Your task to perform on an android device: change the clock display to show seconds Image 0: 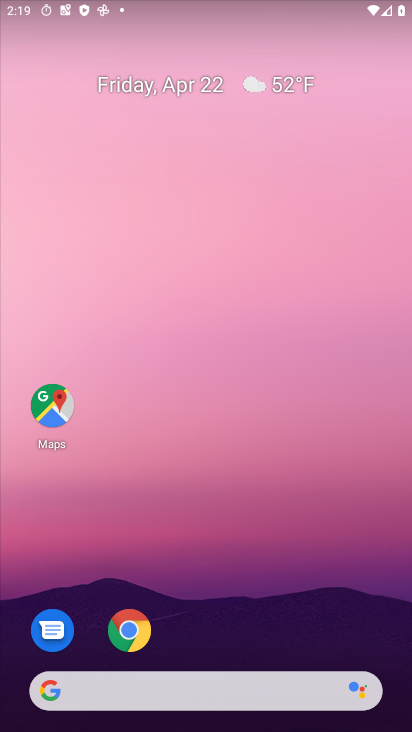
Step 0: drag from (370, 196) to (372, 111)
Your task to perform on an android device: change the clock display to show seconds Image 1: 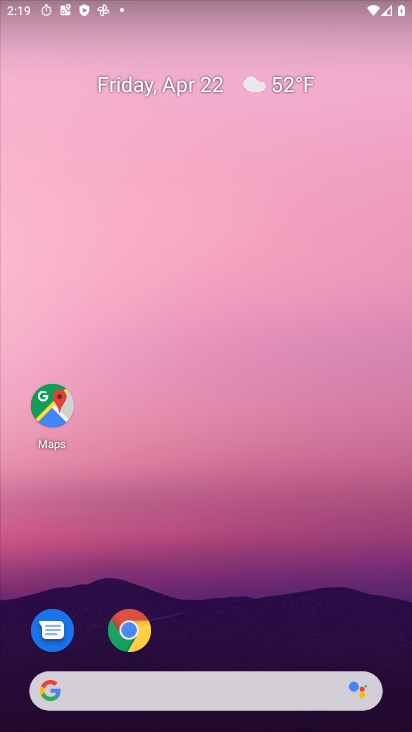
Step 1: click (377, 146)
Your task to perform on an android device: change the clock display to show seconds Image 2: 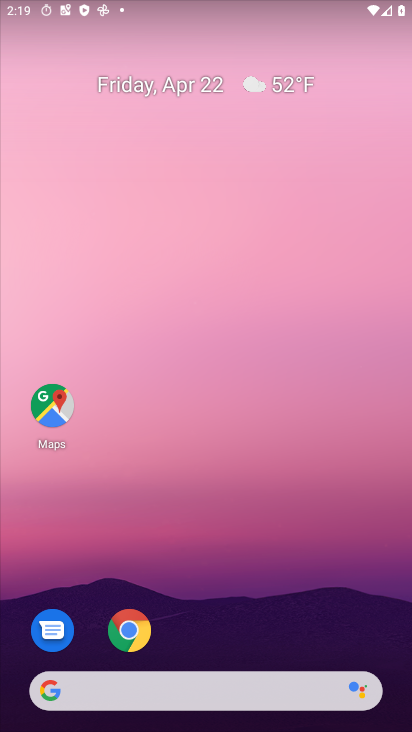
Step 2: drag from (354, 263) to (352, 226)
Your task to perform on an android device: change the clock display to show seconds Image 3: 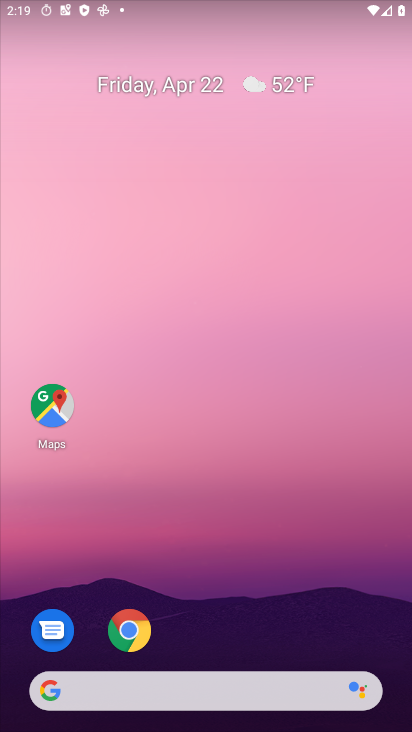
Step 3: drag from (371, 496) to (318, 136)
Your task to perform on an android device: change the clock display to show seconds Image 4: 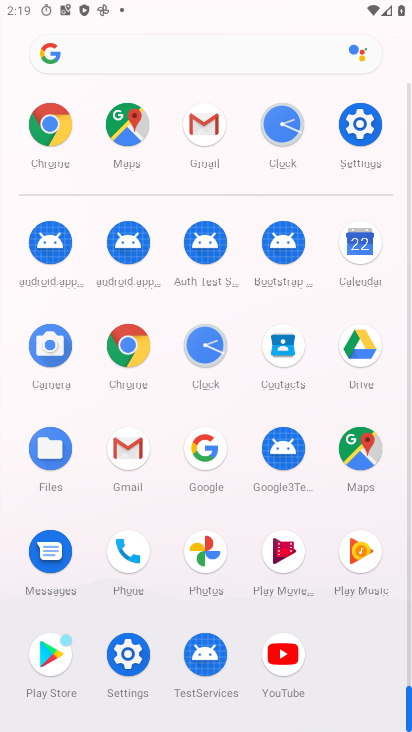
Step 4: click (207, 338)
Your task to perform on an android device: change the clock display to show seconds Image 5: 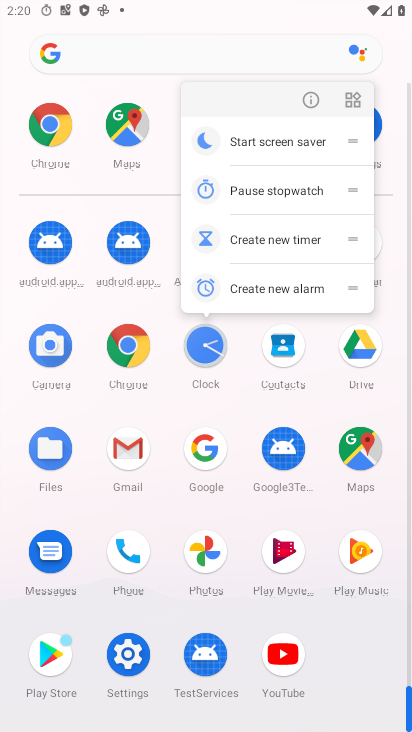
Step 5: click (202, 337)
Your task to perform on an android device: change the clock display to show seconds Image 6: 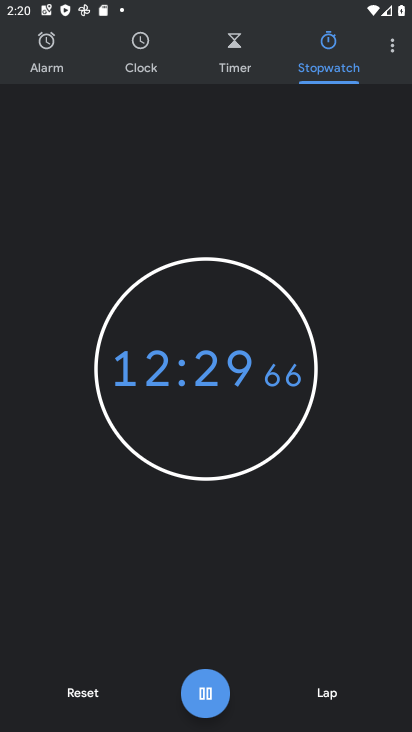
Step 6: click (388, 46)
Your task to perform on an android device: change the clock display to show seconds Image 7: 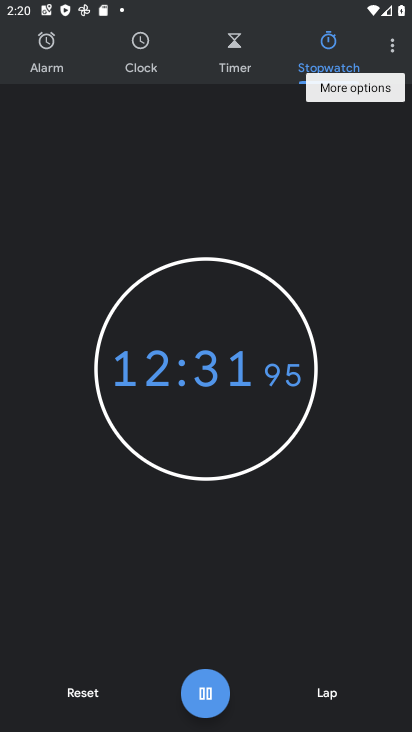
Step 7: click (388, 46)
Your task to perform on an android device: change the clock display to show seconds Image 8: 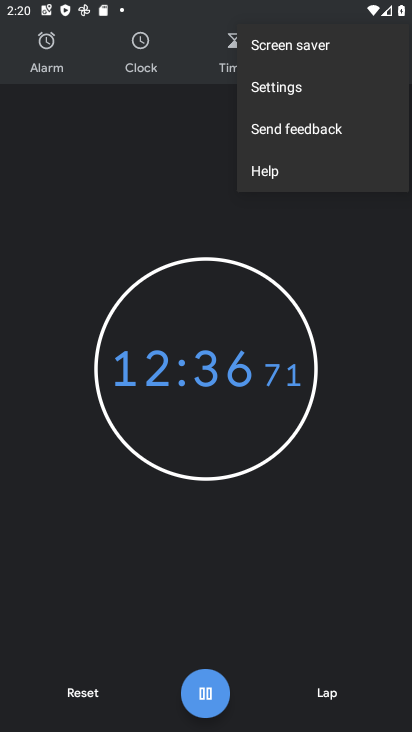
Step 8: click (274, 83)
Your task to perform on an android device: change the clock display to show seconds Image 9: 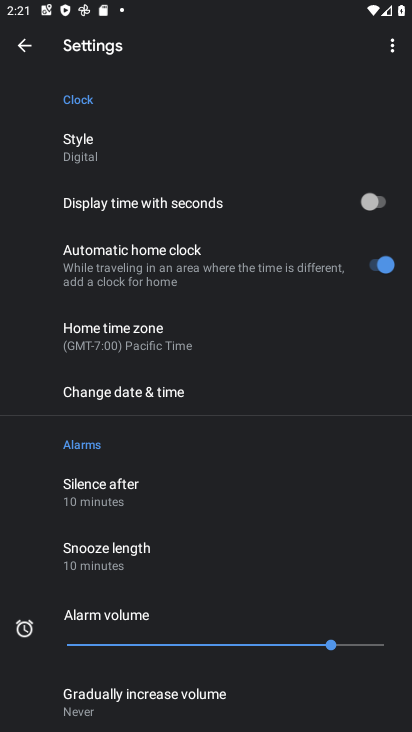
Step 9: click (377, 200)
Your task to perform on an android device: change the clock display to show seconds Image 10: 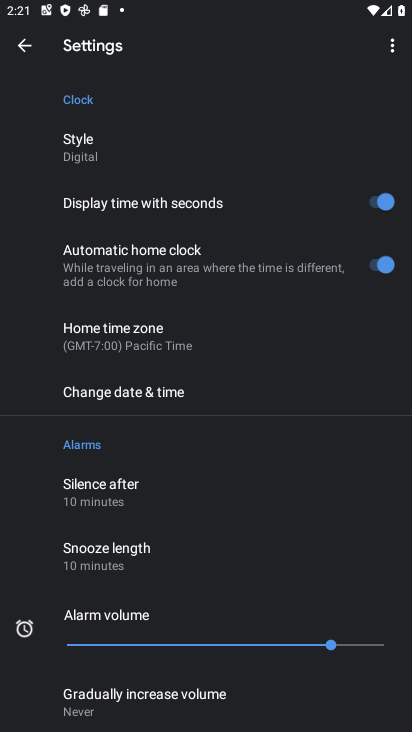
Step 10: task complete